Your task to perform on an android device: change the clock display to show seconds Image 0: 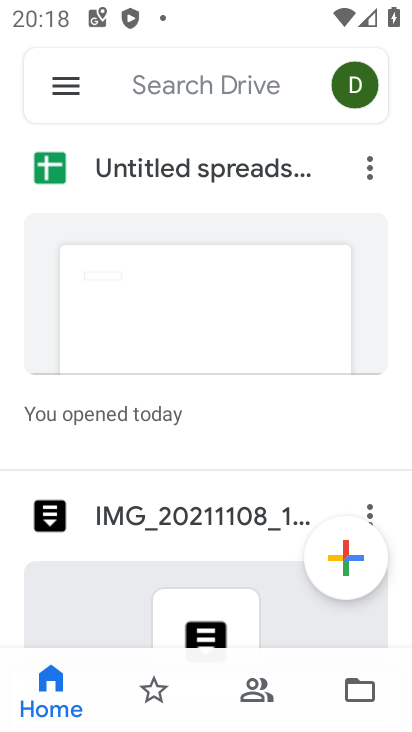
Step 0: press home button
Your task to perform on an android device: change the clock display to show seconds Image 1: 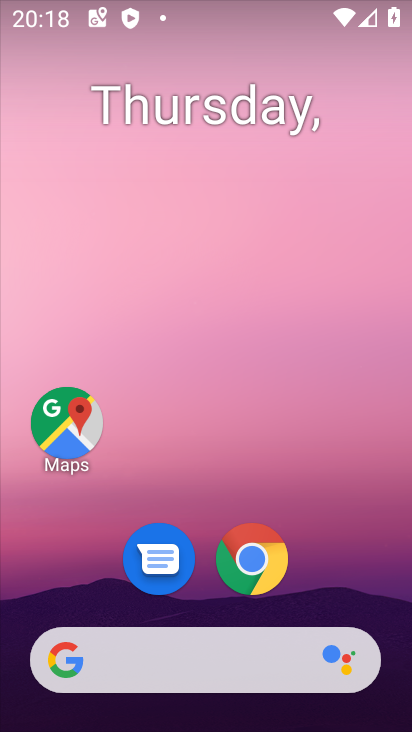
Step 1: drag from (224, 664) to (290, 93)
Your task to perform on an android device: change the clock display to show seconds Image 2: 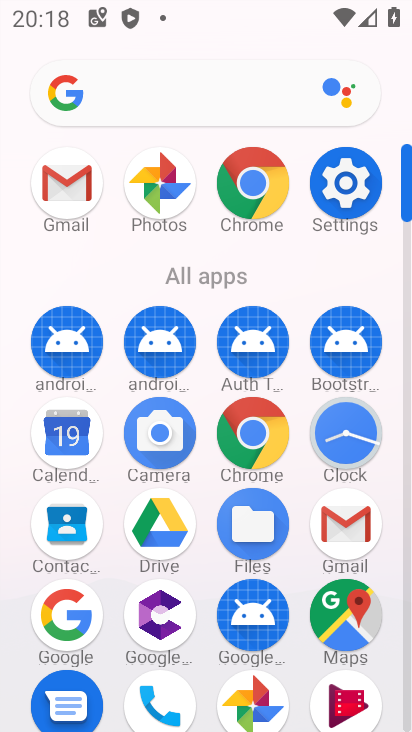
Step 2: click (338, 421)
Your task to perform on an android device: change the clock display to show seconds Image 3: 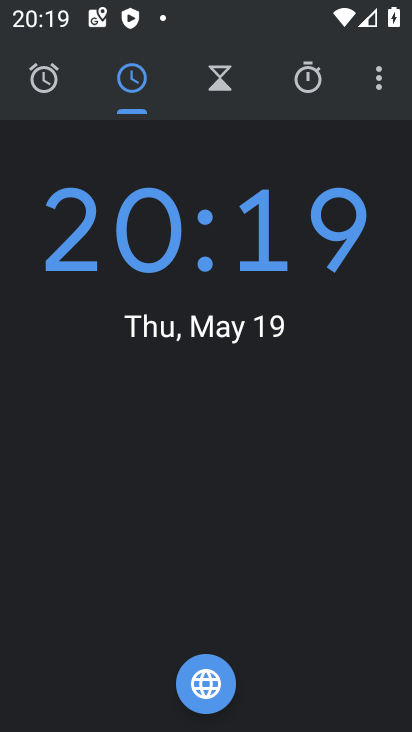
Step 3: click (373, 97)
Your task to perform on an android device: change the clock display to show seconds Image 4: 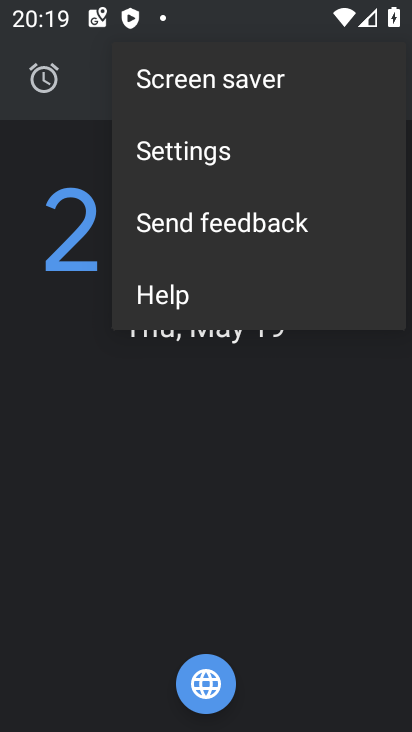
Step 4: click (211, 155)
Your task to perform on an android device: change the clock display to show seconds Image 5: 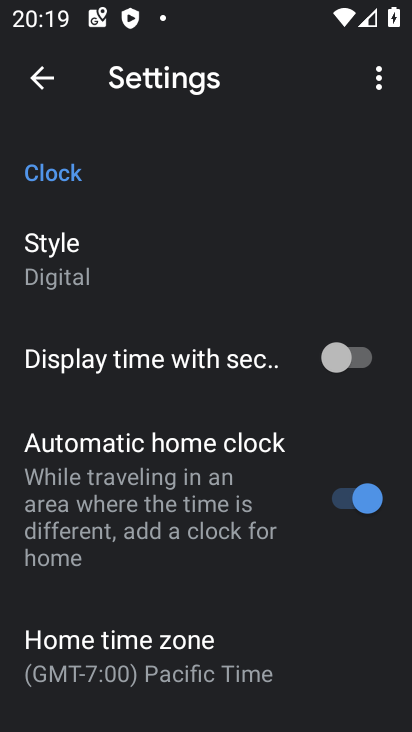
Step 5: click (354, 359)
Your task to perform on an android device: change the clock display to show seconds Image 6: 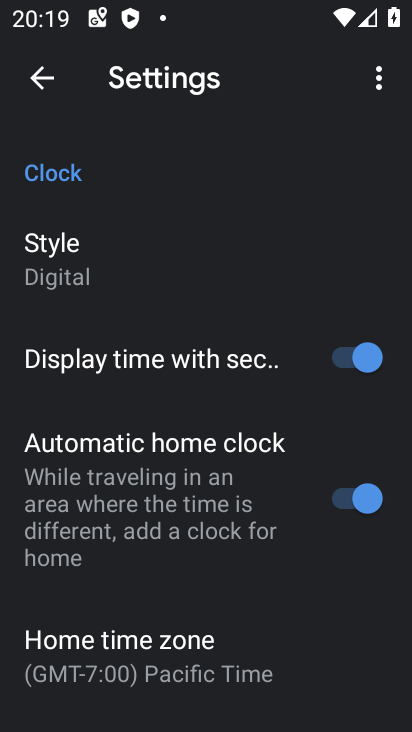
Step 6: task complete